Your task to perform on an android device: Open calendar and show me the first week of next month Image 0: 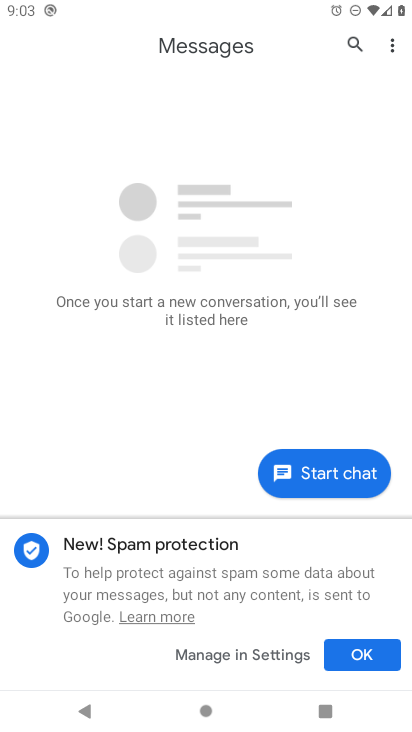
Step 0: press home button
Your task to perform on an android device: Open calendar and show me the first week of next month Image 1: 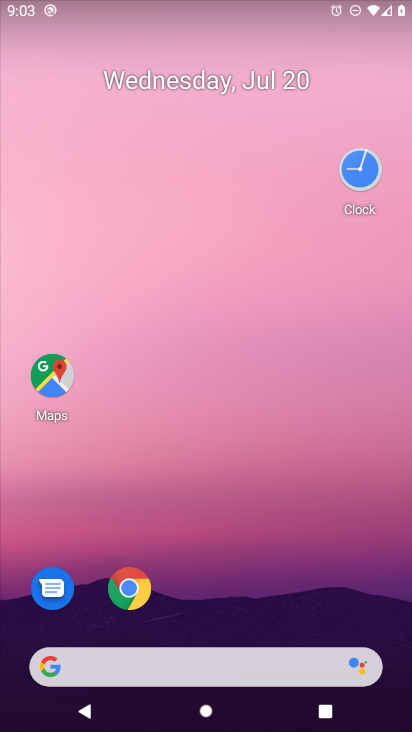
Step 1: drag from (175, 433) to (288, 98)
Your task to perform on an android device: Open calendar and show me the first week of next month Image 2: 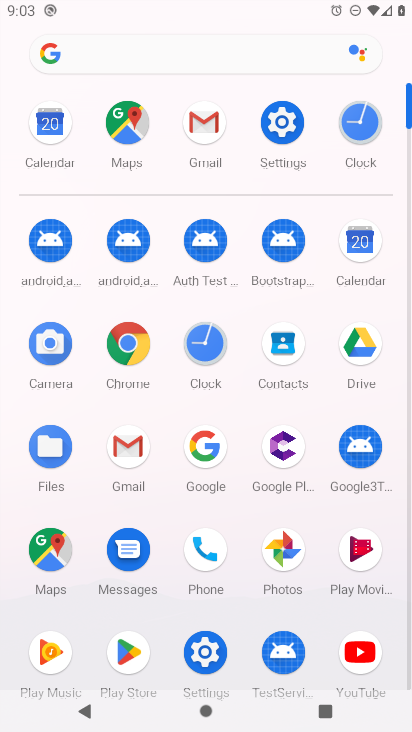
Step 2: click (354, 252)
Your task to perform on an android device: Open calendar and show me the first week of next month Image 3: 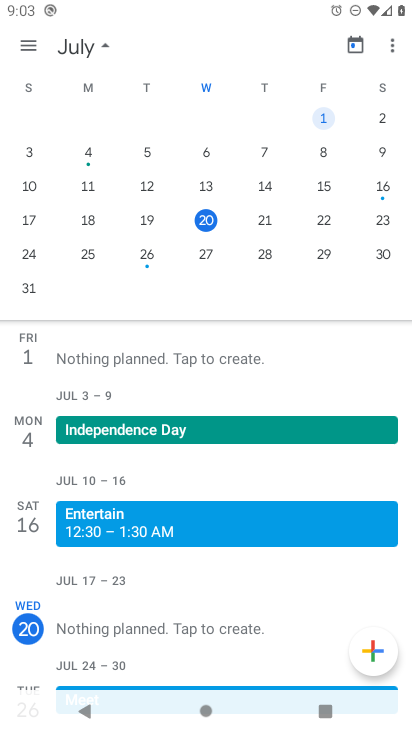
Step 3: task complete